Your task to perform on an android device: Go to Google maps Image 0: 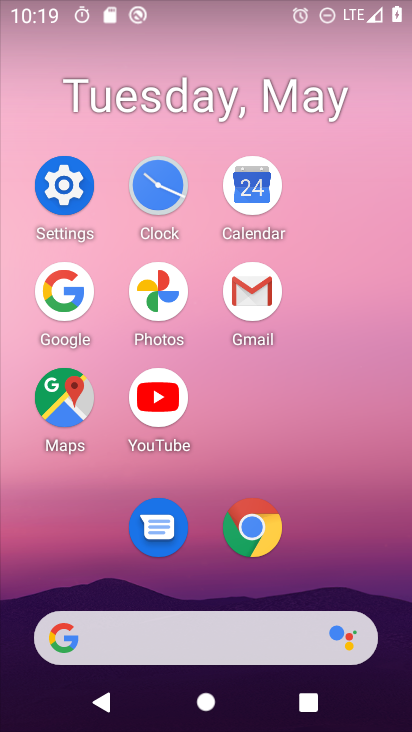
Step 0: click (77, 411)
Your task to perform on an android device: Go to Google maps Image 1: 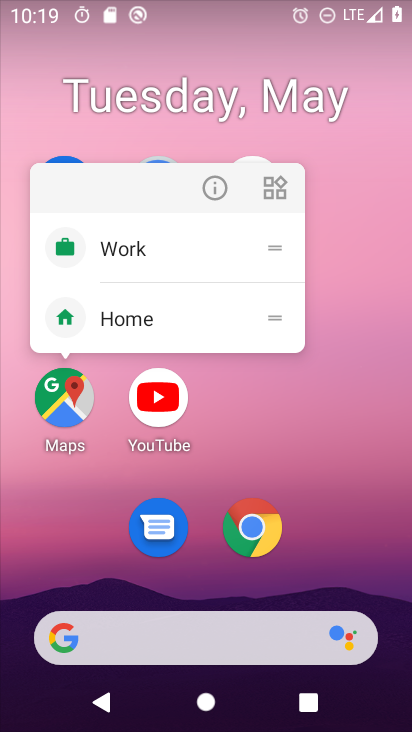
Step 1: click (62, 411)
Your task to perform on an android device: Go to Google maps Image 2: 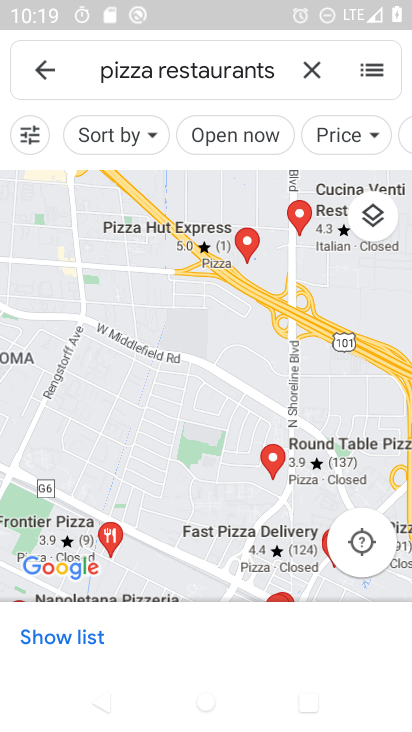
Step 2: task complete